Your task to perform on an android device: set the timer Image 0: 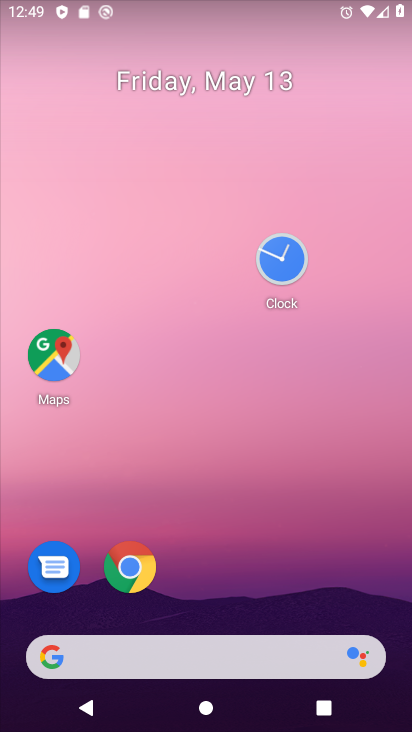
Step 0: drag from (312, 557) to (261, 130)
Your task to perform on an android device: set the timer Image 1: 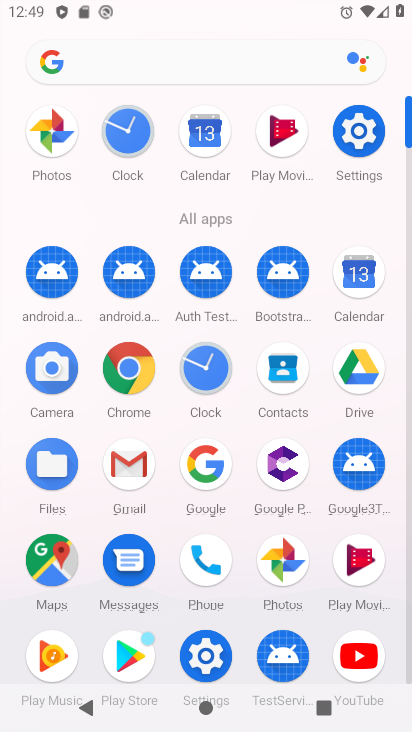
Step 1: click (137, 144)
Your task to perform on an android device: set the timer Image 2: 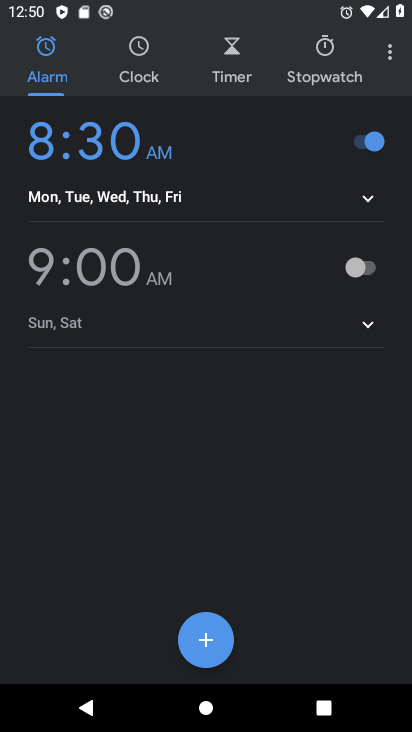
Step 2: click (253, 65)
Your task to perform on an android device: set the timer Image 3: 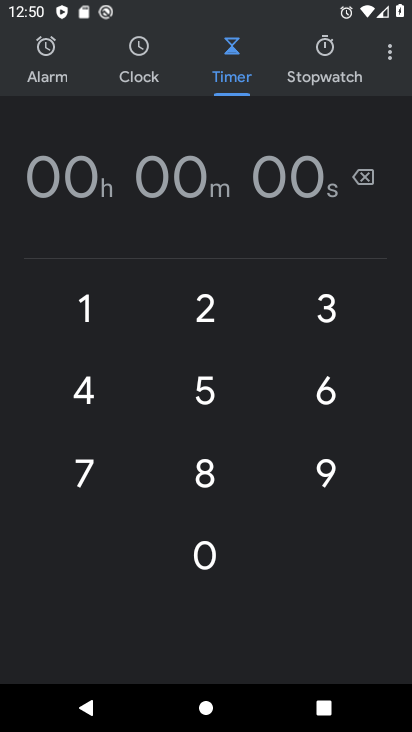
Step 3: task complete